Your task to perform on an android device: Turn off the flashlight Image 0: 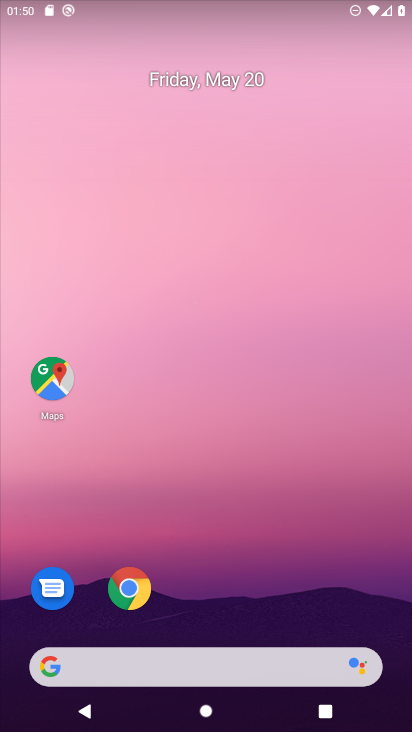
Step 0: drag from (261, 25) to (260, 577)
Your task to perform on an android device: Turn off the flashlight Image 1: 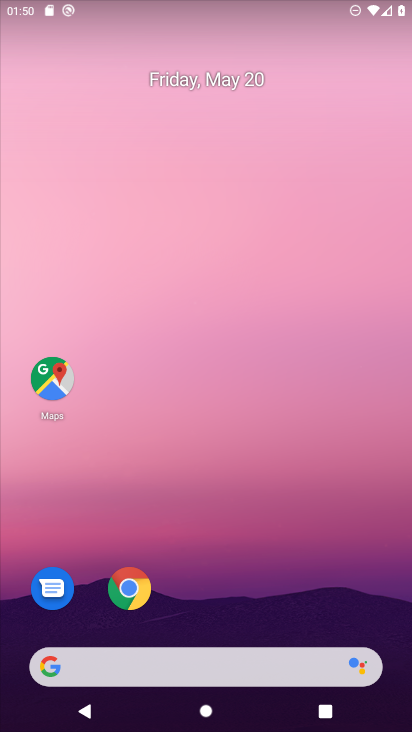
Step 1: drag from (279, 20) to (238, 497)
Your task to perform on an android device: Turn off the flashlight Image 2: 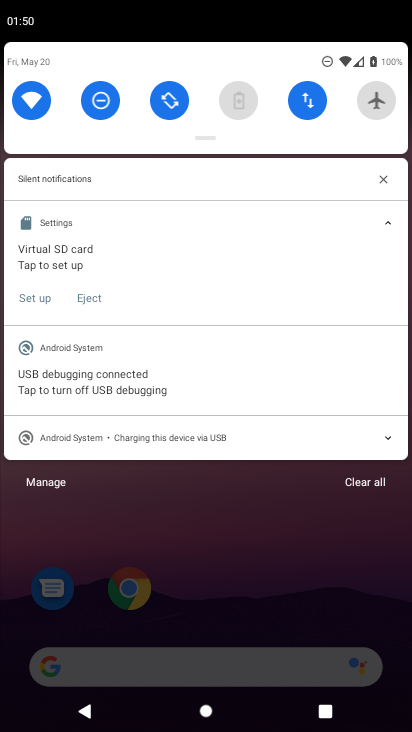
Step 2: drag from (195, 126) to (210, 429)
Your task to perform on an android device: Turn off the flashlight Image 3: 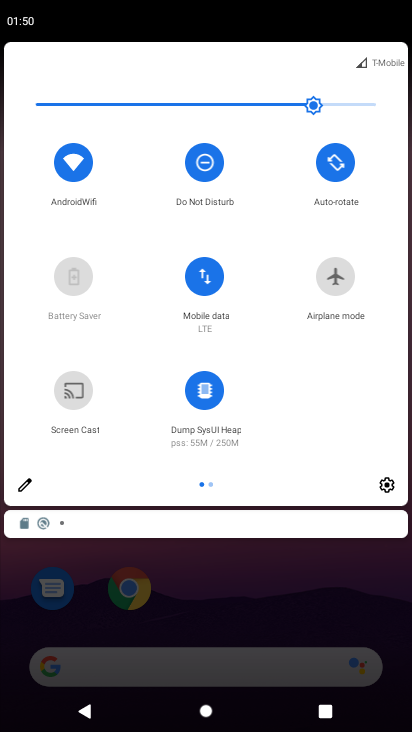
Step 3: click (21, 483)
Your task to perform on an android device: Turn off the flashlight Image 4: 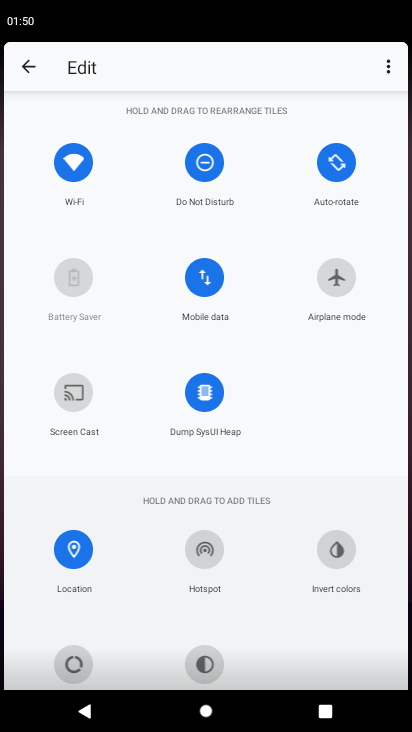
Step 4: task complete